Your task to perform on an android device: open app "YouTube Kids" (install if not already installed) Image 0: 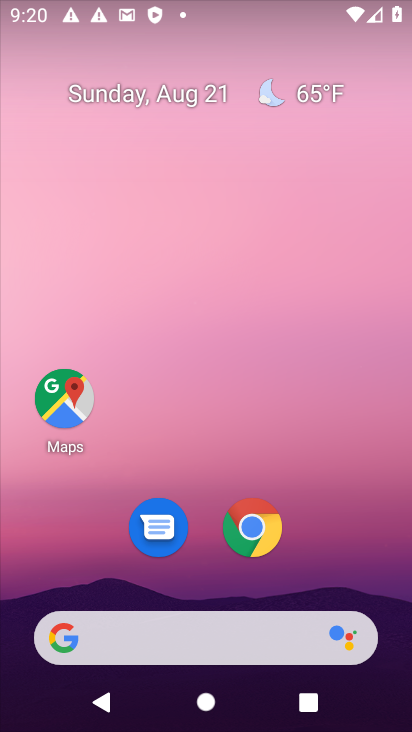
Step 0: drag from (192, 598) to (256, 1)
Your task to perform on an android device: open app "YouTube Kids" (install if not already installed) Image 1: 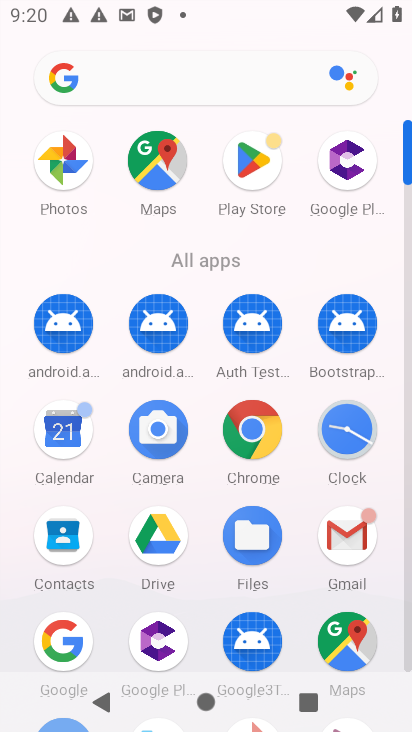
Step 1: click (258, 184)
Your task to perform on an android device: open app "YouTube Kids" (install if not already installed) Image 2: 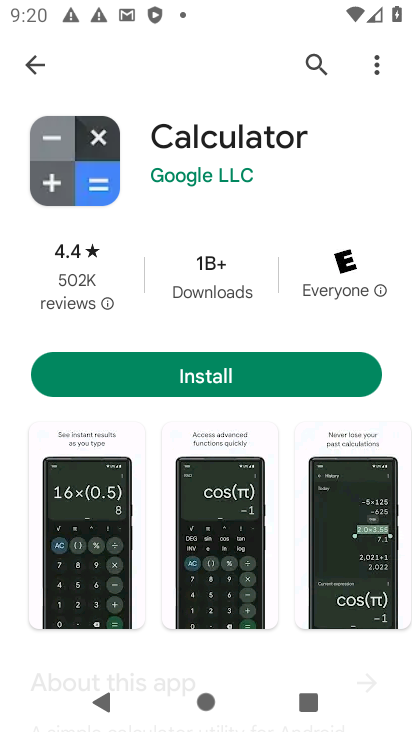
Step 2: click (28, 70)
Your task to perform on an android device: open app "YouTube Kids" (install if not already installed) Image 3: 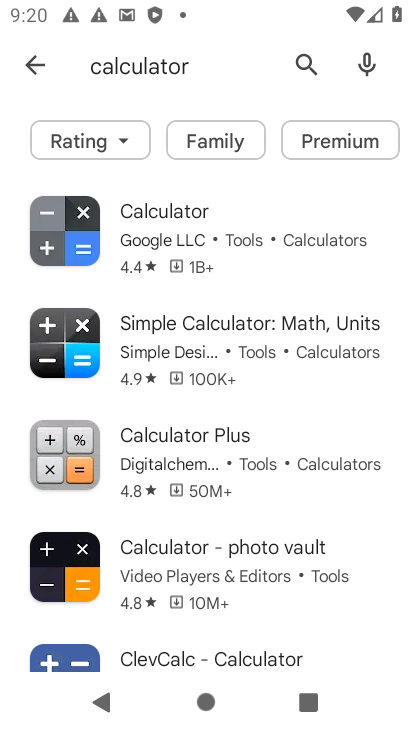
Step 3: click (166, 62)
Your task to perform on an android device: open app "YouTube Kids" (install if not already installed) Image 4: 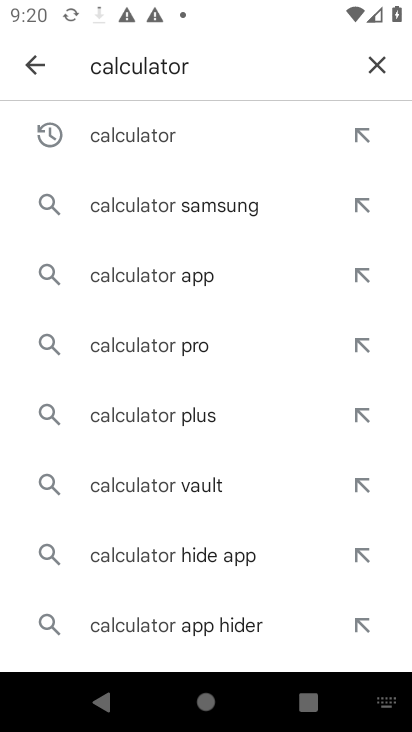
Step 4: click (374, 61)
Your task to perform on an android device: open app "YouTube Kids" (install if not already installed) Image 5: 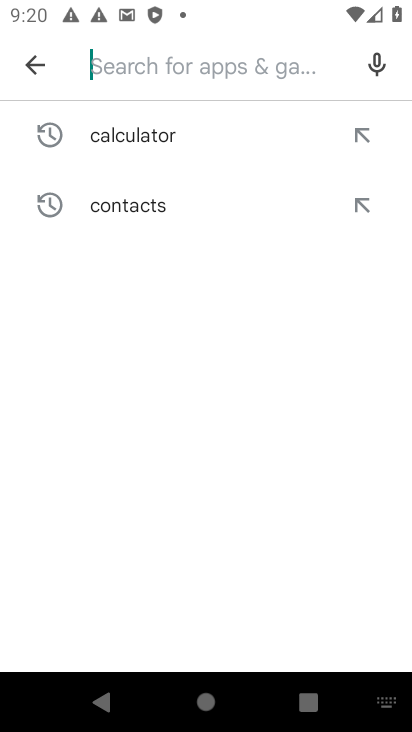
Step 5: type "youtube kids"
Your task to perform on an android device: open app "YouTube Kids" (install if not already installed) Image 6: 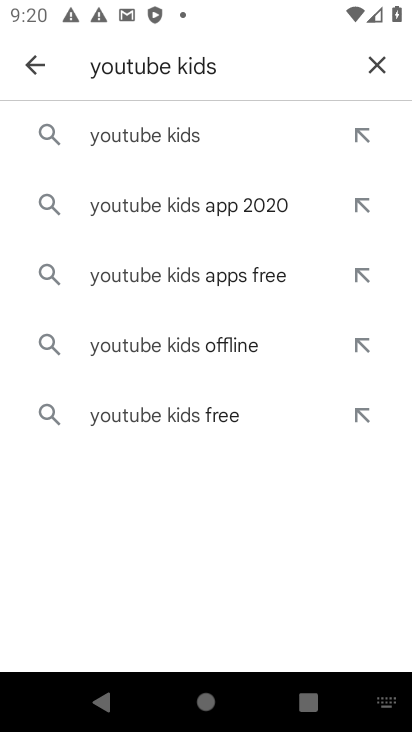
Step 6: click (179, 144)
Your task to perform on an android device: open app "YouTube Kids" (install if not already installed) Image 7: 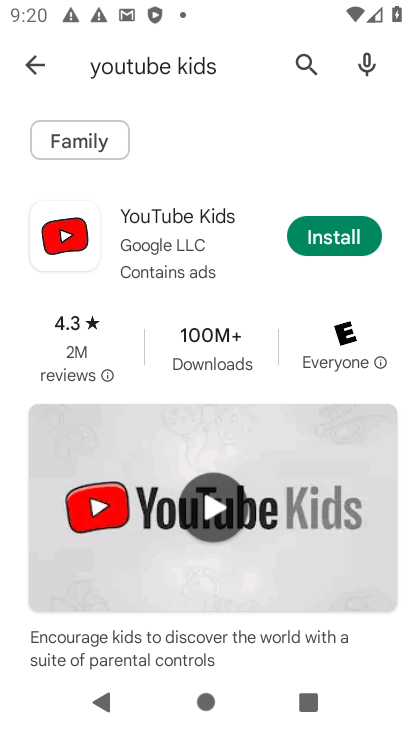
Step 7: click (351, 243)
Your task to perform on an android device: open app "YouTube Kids" (install if not already installed) Image 8: 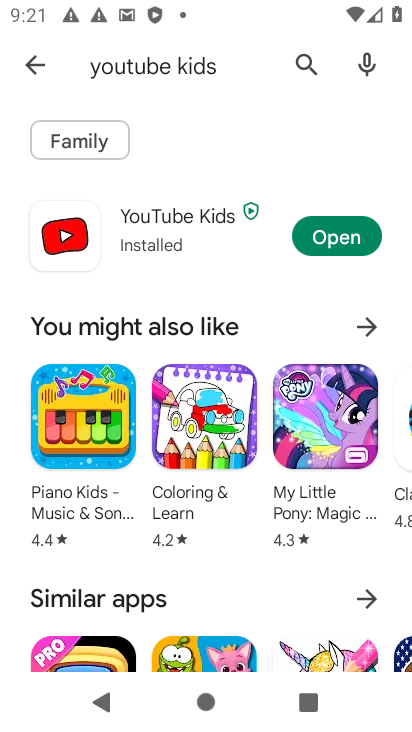
Step 8: click (348, 234)
Your task to perform on an android device: open app "YouTube Kids" (install if not already installed) Image 9: 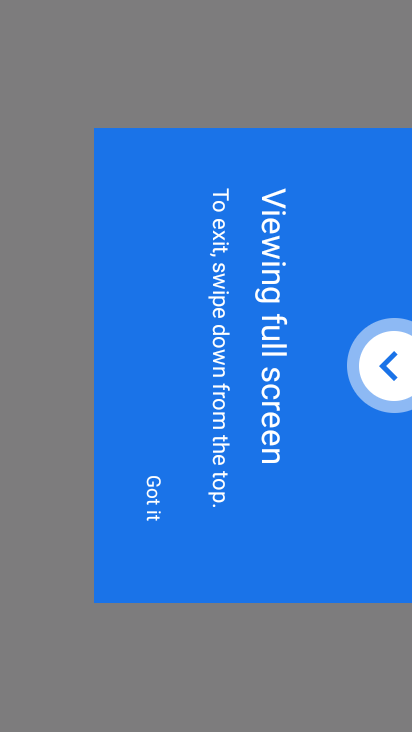
Step 9: click (155, 494)
Your task to perform on an android device: open app "YouTube Kids" (install if not already installed) Image 10: 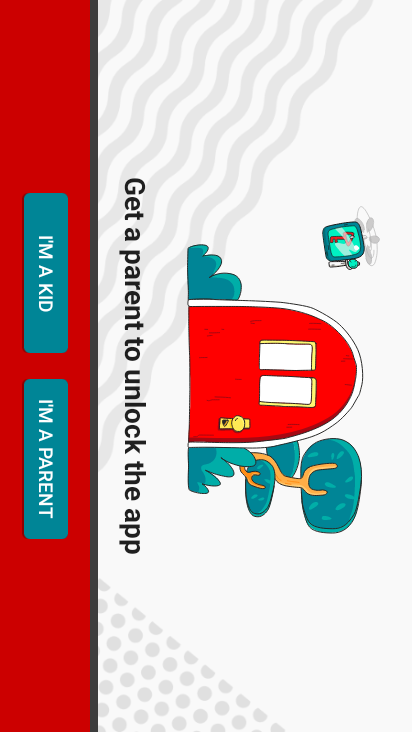
Step 10: click (43, 453)
Your task to perform on an android device: open app "YouTube Kids" (install if not already installed) Image 11: 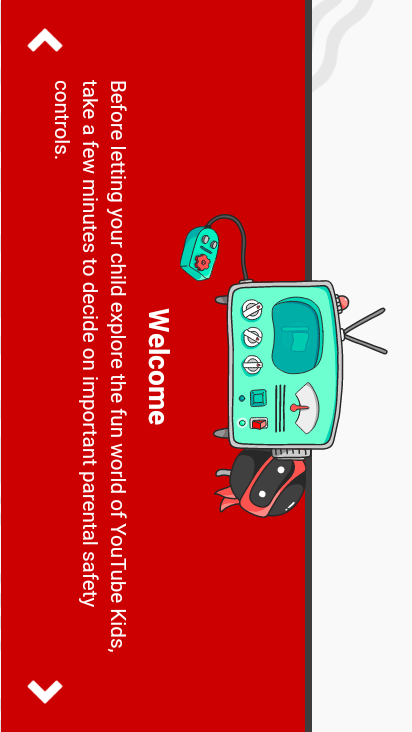
Step 11: click (38, 695)
Your task to perform on an android device: open app "YouTube Kids" (install if not already installed) Image 12: 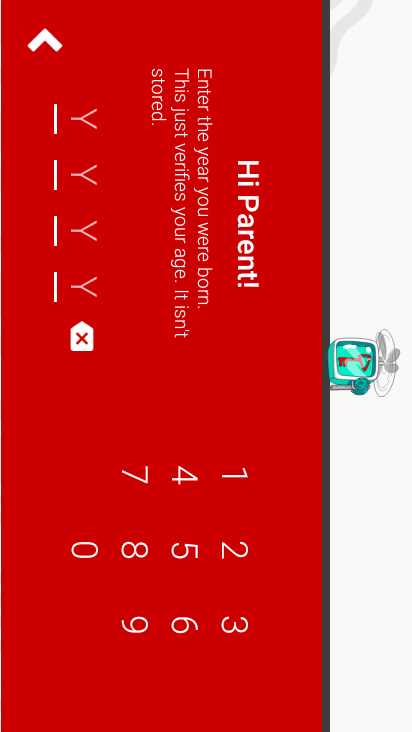
Step 12: click (229, 472)
Your task to perform on an android device: open app "YouTube Kids" (install if not already installed) Image 13: 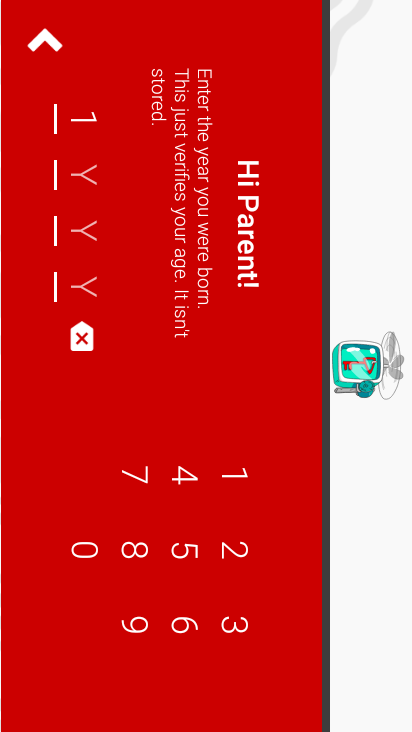
Step 13: click (134, 628)
Your task to perform on an android device: open app "YouTube Kids" (install if not already installed) Image 14: 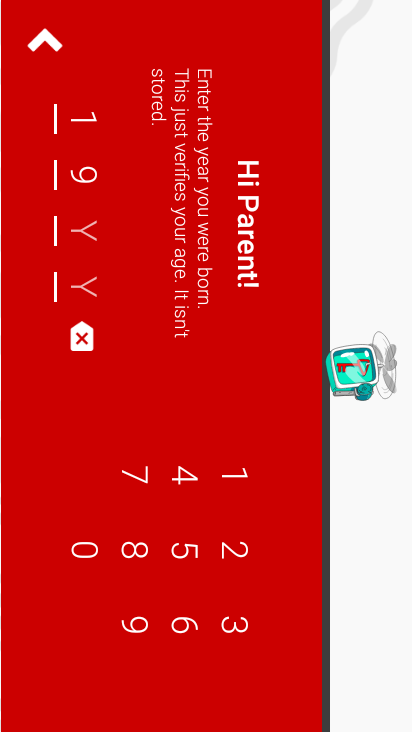
Step 14: click (134, 625)
Your task to perform on an android device: open app "YouTube Kids" (install if not already installed) Image 15: 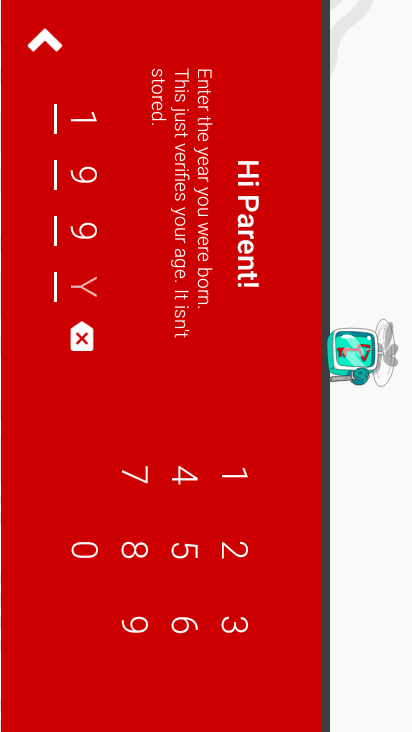
Step 15: click (238, 633)
Your task to perform on an android device: open app "YouTube Kids" (install if not already installed) Image 16: 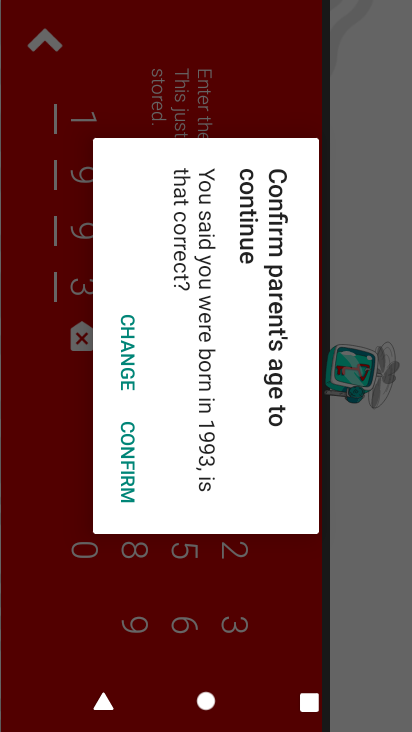
Step 16: click (123, 463)
Your task to perform on an android device: open app "YouTube Kids" (install if not already installed) Image 17: 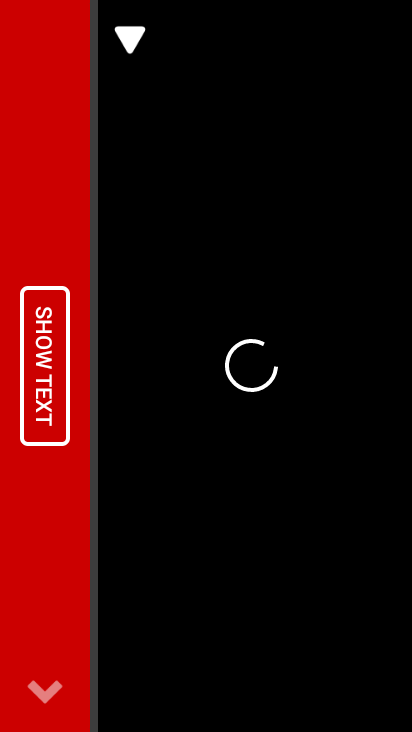
Step 17: click (41, 372)
Your task to perform on an android device: open app "YouTube Kids" (install if not already installed) Image 18: 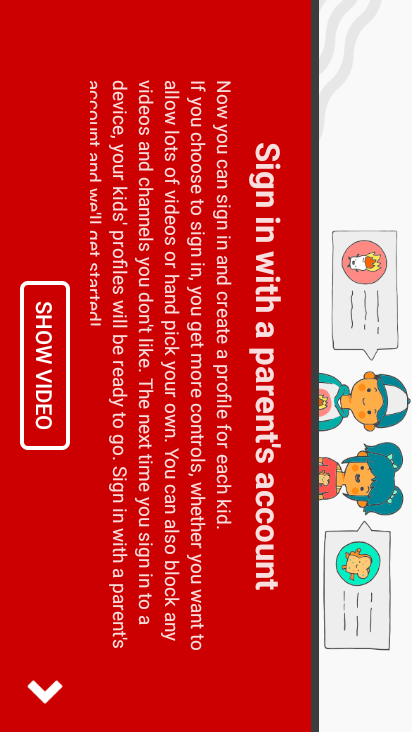
Step 18: click (46, 691)
Your task to perform on an android device: open app "YouTube Kids" (install if not already installed) Image 19: 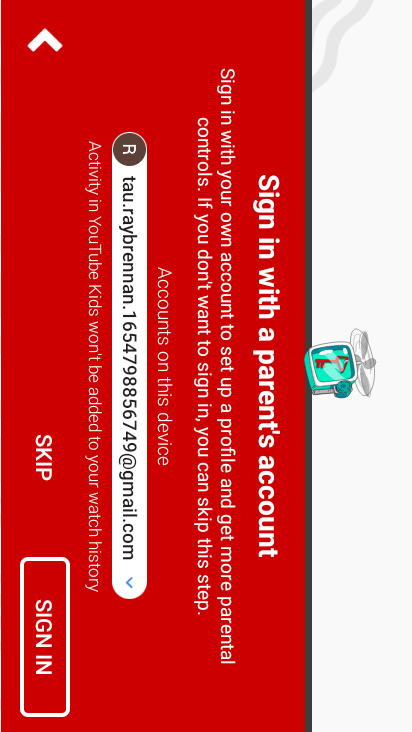
Step 19: click (35, 457)
Your task to perform on an android device: open app "YouTube Kids" (install if not already installed) Image 20: 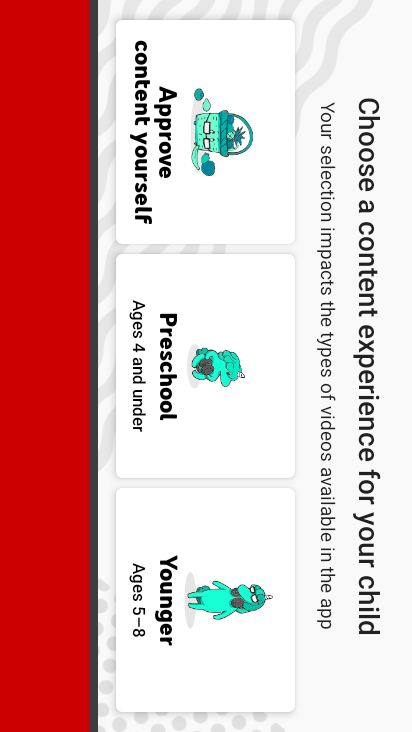
Step 20: click (149, 376)
Your task to perform on an android device: open app "YouTube Kids" (install if not already installed) Image 21: 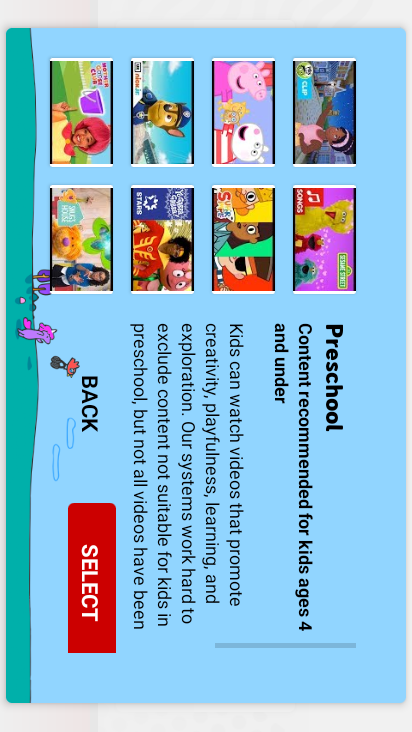
Step 21: click (81, 603)
Your task to perform on an android device: open app "YouTube Kids" (install if not already installed) Image 22: 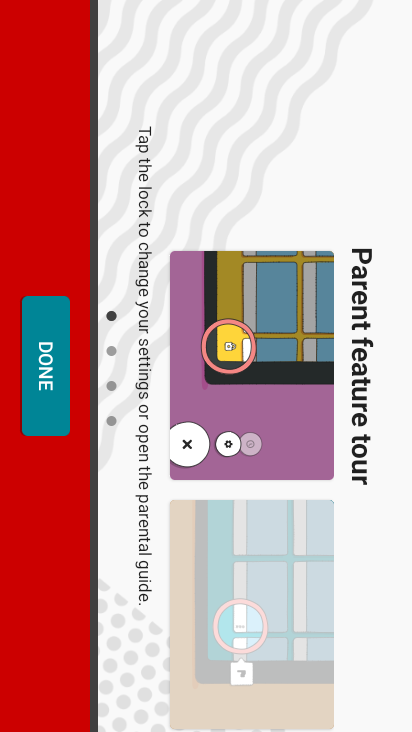
Step 22: click (39, 379)
Your task to perform on an android device: open app "YouTube Kids" (install if not already installed) Image 23: 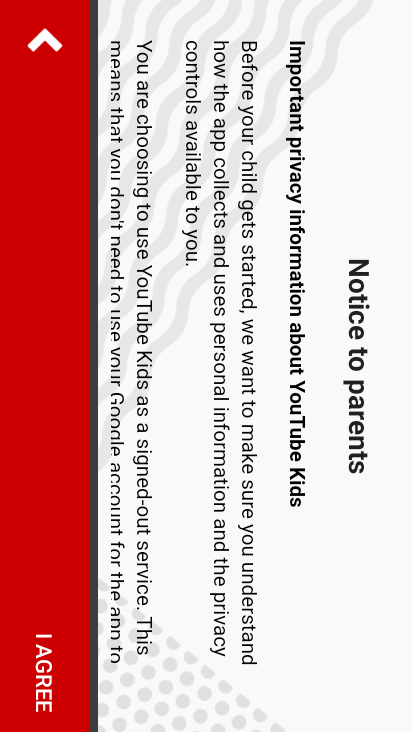
Step 23: click (43, 683)
Your task to perform on an android device: open app "YouTube Kids" (install if not already installed) Image 24: 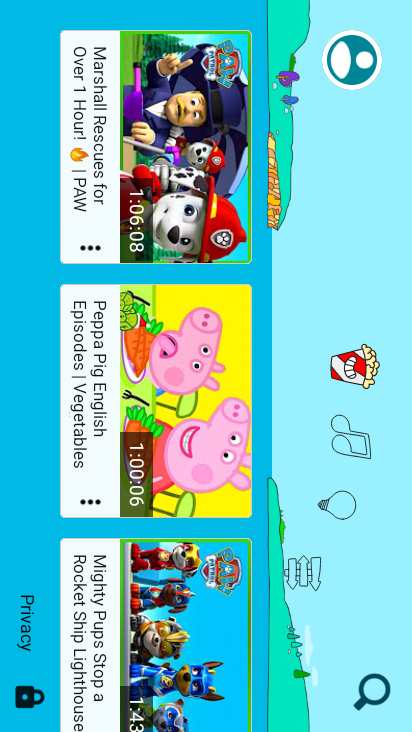
Step 24: task complete